Your task to perform on an android device: add a contact Image 0: 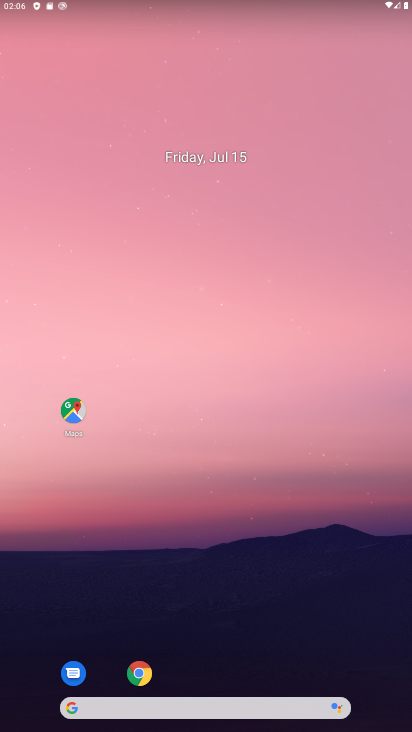
Step 0: drag from (250, 662) to (274, 175)
Your task to perform on an android device: add a contact Image 1: 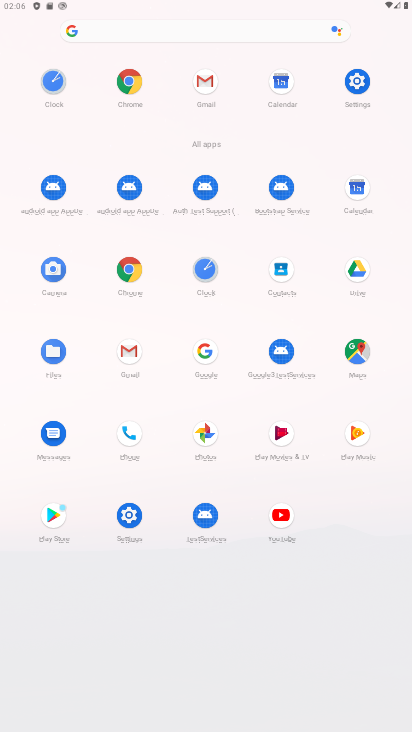
Step 1: click (133, 432)
Your task to perform on an android device: add a contact Image 2: 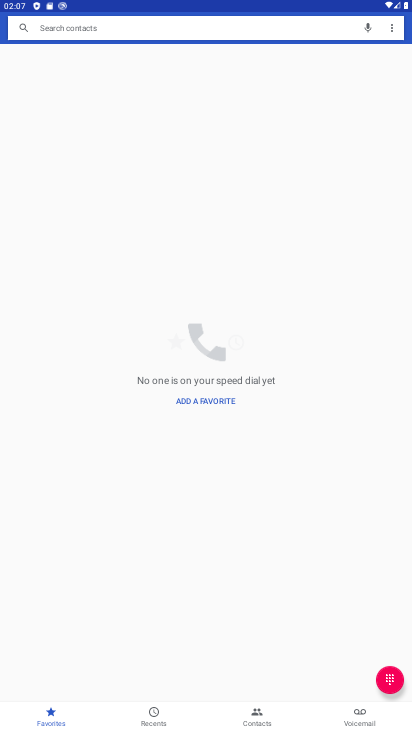
Step 2: click (254, 719)
Your task to perform on an android device: add a contact Image 3: 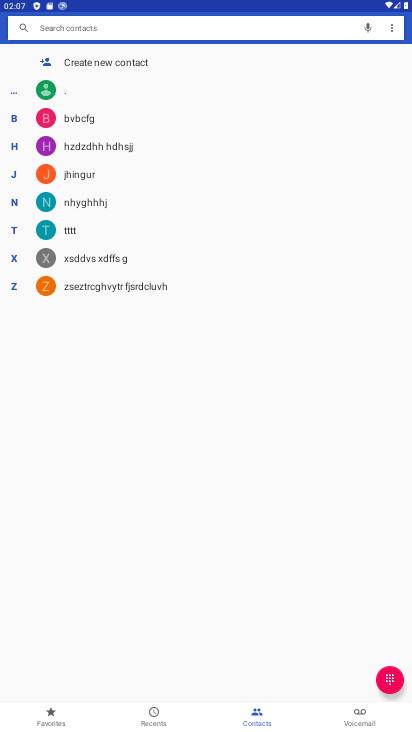
Step 3: click (95, 52)
Your task to perform on an android device: add a contact Image 4: 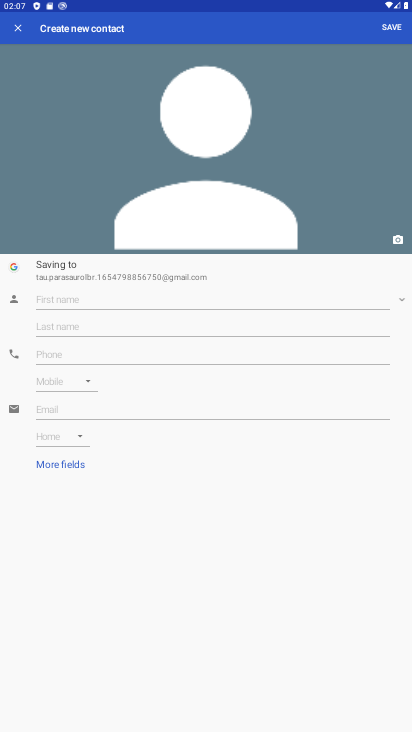
Step 4: click (125, 292)
Your task to perform on an android device: add a contact Image 5: 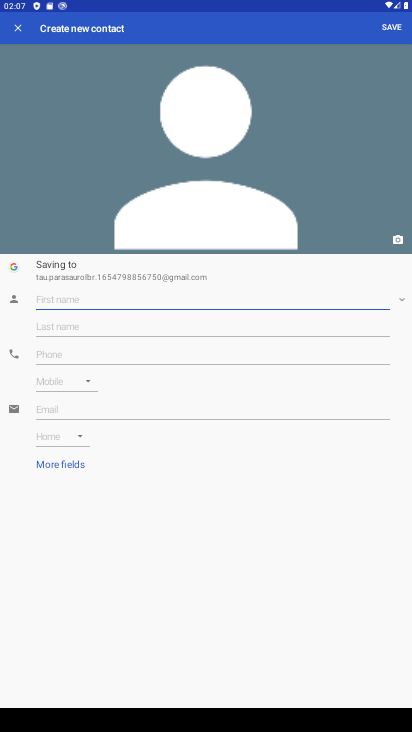
Step 5: type "rttttt"
Your task to perform on an android device: add a contact Image 6: 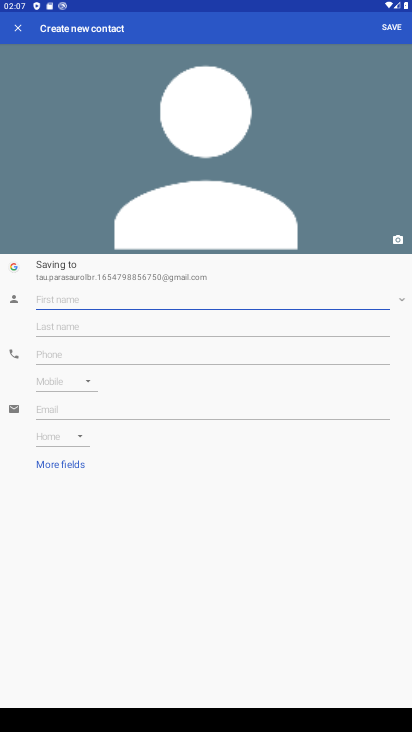
Step 6: click (50, 351)
Your task to perform on an android device: add a contact Image 7: 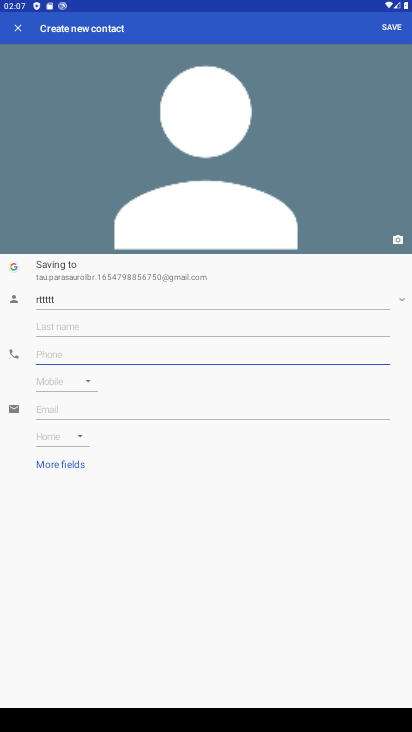
Step 7: type "5678765"
Your task to perform on an android device: add a contact Image 8: 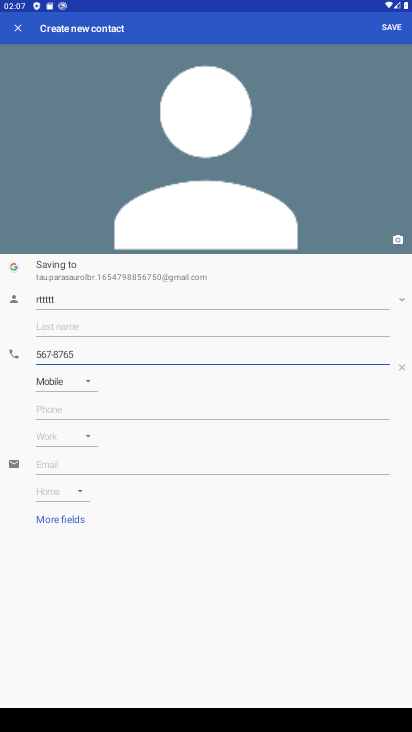
Step 8: click (397, 21)
Your task to perform on an android device: add a contact Image 9: 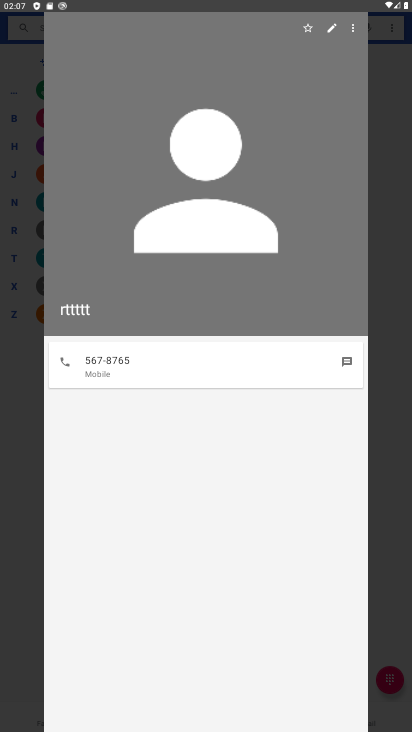
Step 9: task complete